Your task to perform on an android device: When is my next appointment? Image 0: 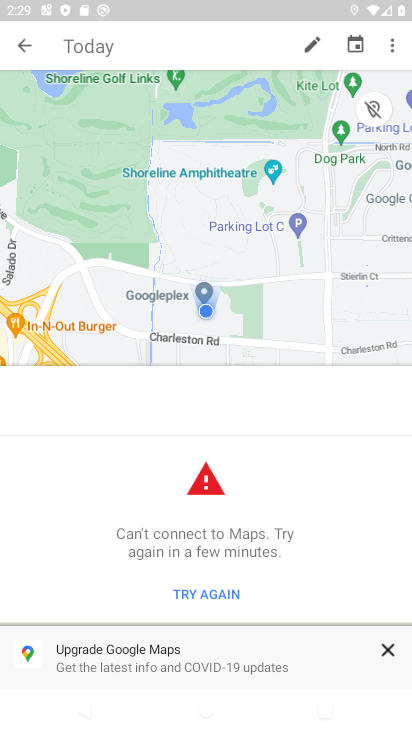
Step 0: press home button
Your task to perform on an android device: When is my next appointment? Image 1: 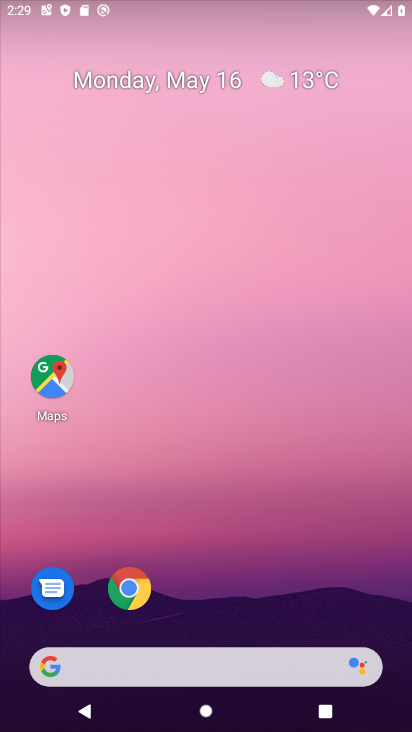
Step 1: drag from (239, 686) to (293, 10)
Your task to perform on an android device: When is my next appointment? Image 2: 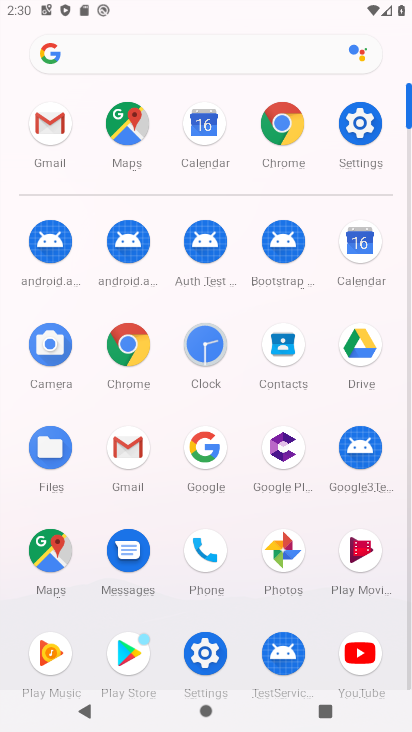
Step 2: click (364, 249)
Your task to perform on an android device: When is my next appointment? Image 3: 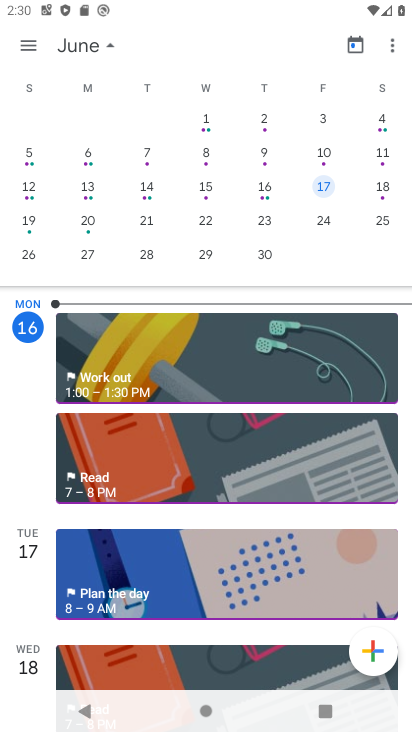
Step 3: drag from (360, 213) to (405, 221)
Your task to perform on an android device: When is my next appointment? Image 4: 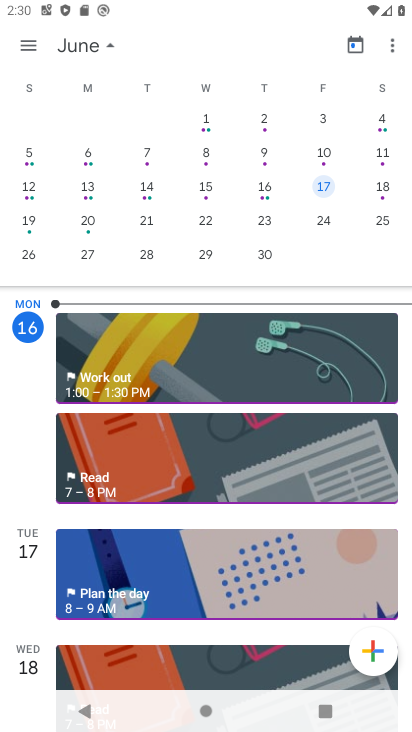
Step 4: drag from (151, 217) to (406, 166)
Your task to perform on an android device: When is my next appointment? Image 5: 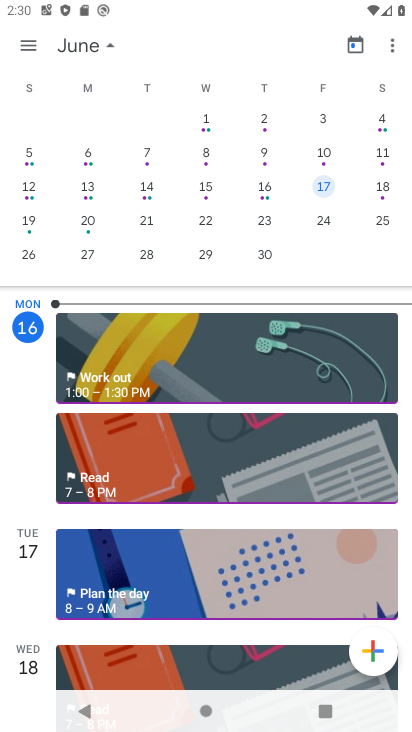
Step 5: drag from (89, 204) to (393, 152)
Your task to perform on an android device: When is my next appointment? Image 6: 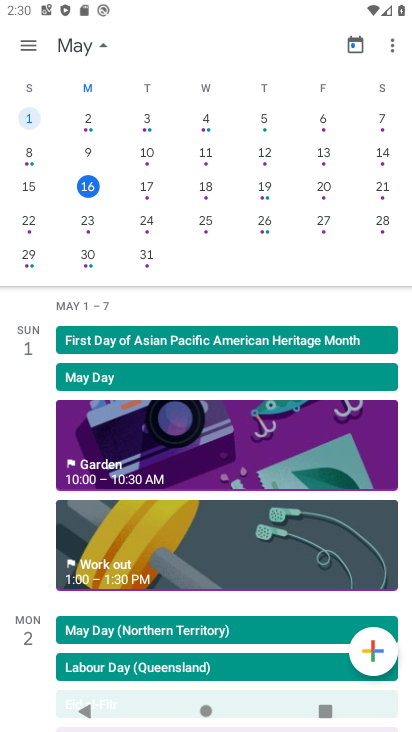
Step 6: drag from (44, 206) to (162, 203)
Your task to perform on an android device: When is my next appointment? Image 7: 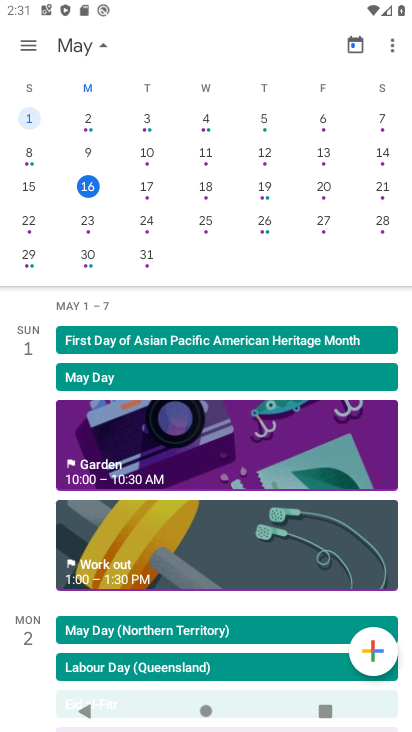
Step 7: click (91, 187)
Your task to perform on an android device: When is my next appointment? Image 8: 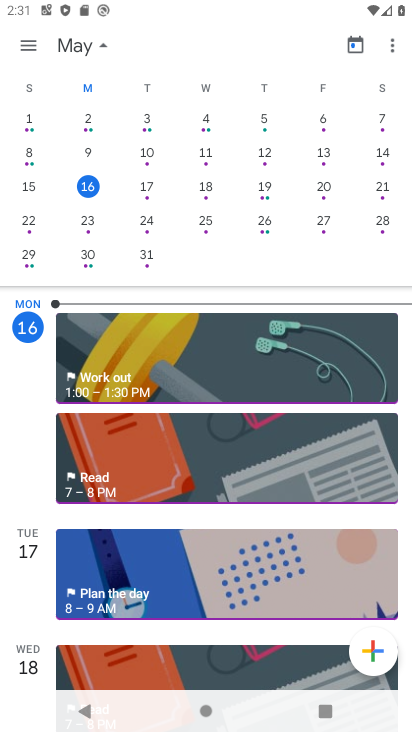
Step 8: task complete